Your task to perform on an android device: Empty the shopping cart on walmart.com. Add "rayovac triple a" to the cart on walmart.com, then select checkout. Image 0: 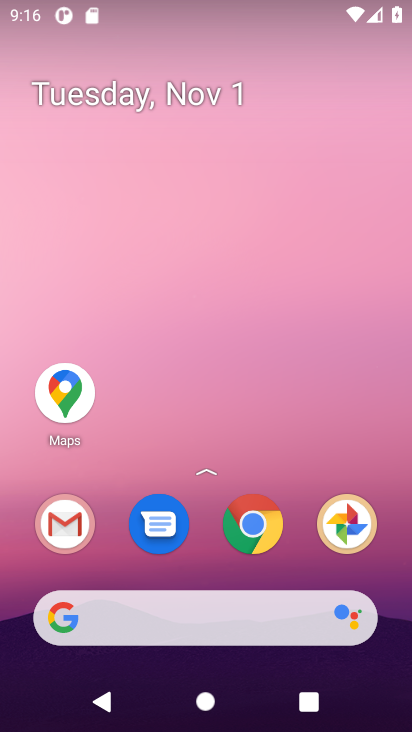
Step 0: press home button
Your task to perform on an android device: Empty the shopping cart on walmart.com. Add "rayovac triple a" to the cart on walmart.com, then select checkout. Image 1: 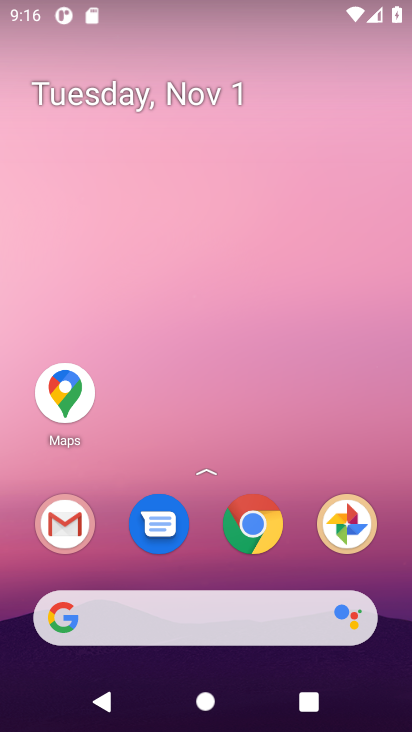
Step 1: click (92, 612)
Your task to perform on an android device: Empty the shopping cart on walmart.com. Add "rayovac triple a" to the cart on walmart.com, then select checkout. Image 2: 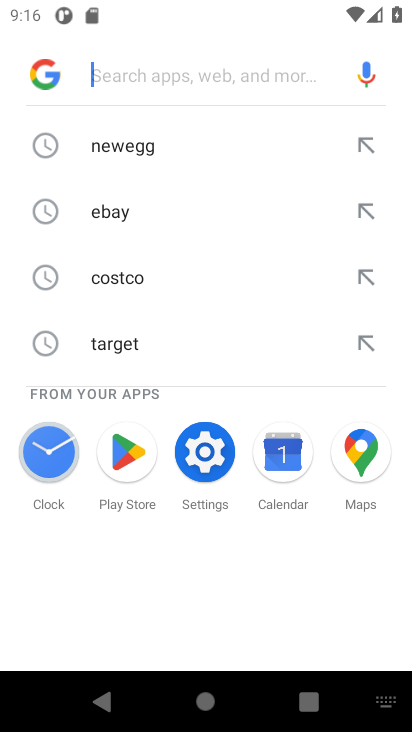
Step 2: type "walmart.com"
Your task to perform on an android device: Empty the shopping cart on walmart.com. Add "rayovac triple a" to the cart on walmart.com, then select checkout. Image 3: 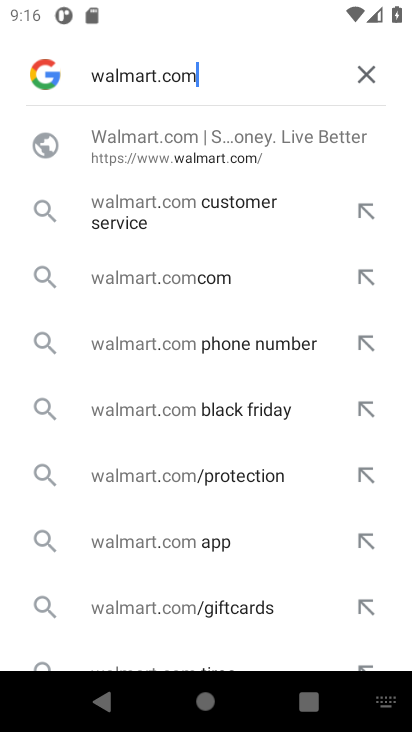
Step 3: press enter
Your task to perform on an android device: Empty the shopping cart on walmart.com. Add "rayovac triple a" to the cart on walmart.com, then select checkout. Image 4: 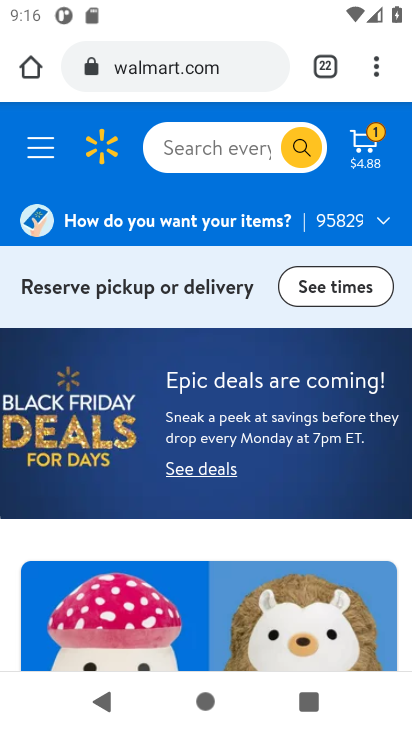
Step 4: click (368, 138)
Your task to perform on an android device: Empty the shopping cart on walmart.com. Add "rayovac triple a" to the cart on walmart.com, then select checkout. Image 5: 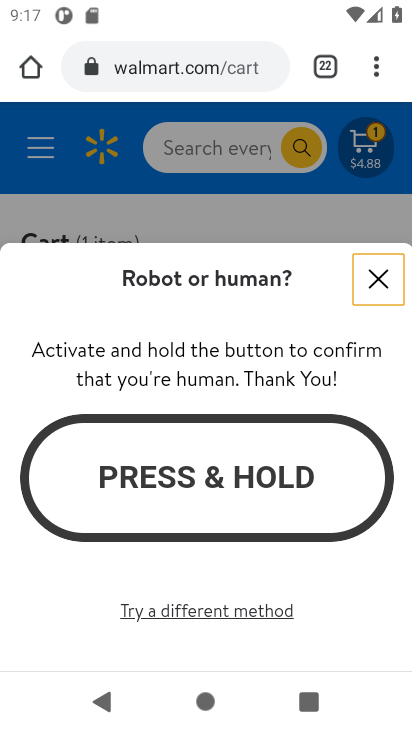
Step 5: click (172, 481)
Your task to perform on an android device: Empty the shopping cart on walmart.com. Add "rayovac triple a" to the cart on walmart.com, then select checkout. Image 6: 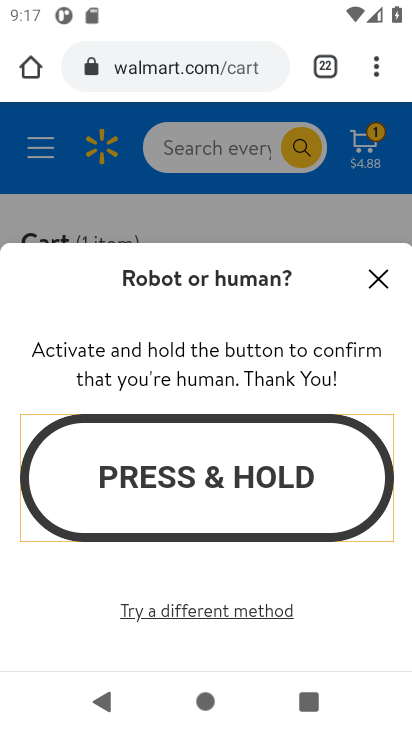
Step 6: click (170, 474)
Your task to perform on an android device: Empty the shopping cart on walmart.com. Add "rayovac triple a" to the cart on walmart.com, then select checkout. Image 7: 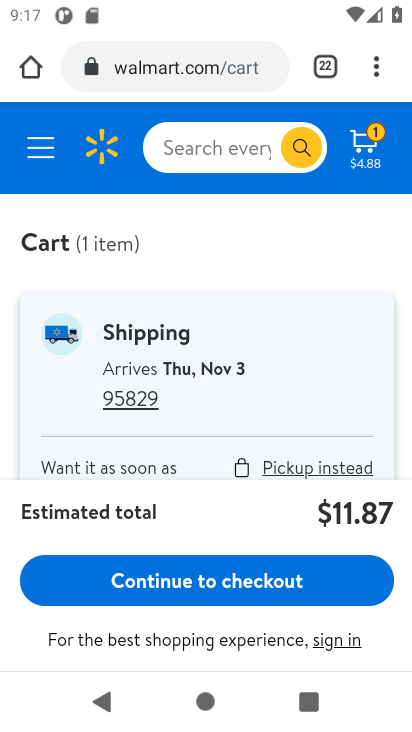
Step 7: drag from (212, 418) to (235, 234)
Your task to perform on an android device: Empty the shopping cart on walmart.com. Add "rayovac triple a" to the cart on walmart.com, then select checkout. Image 8: 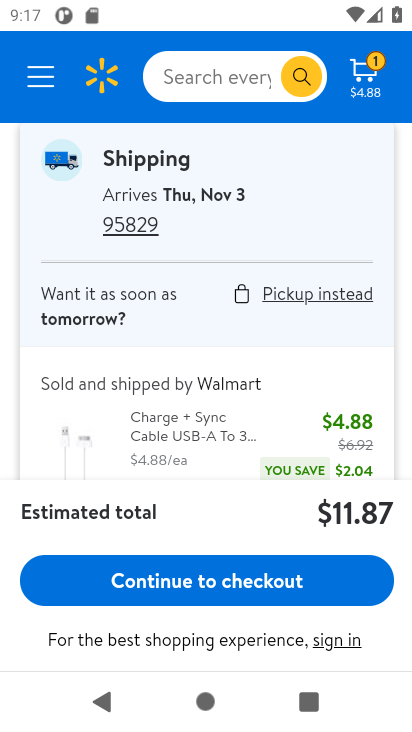
Step 8: drag from (183, 430) to (208, 184)
Your task to perform on an android device: Empty the shopping cart on walmart.com. Add "rayovac triple a" to the cart on walmart.com, then select checkout. Image 9: 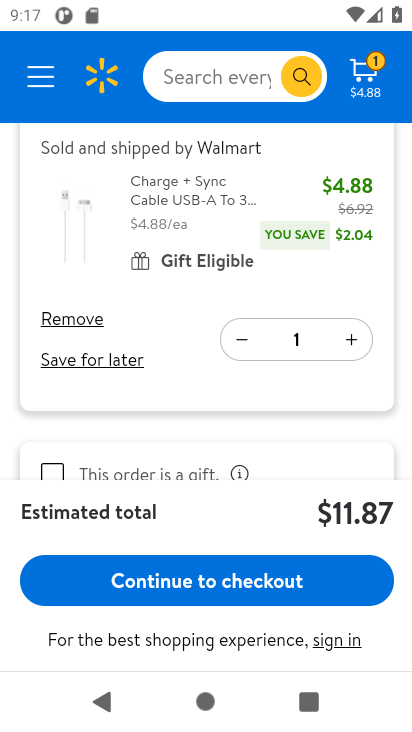
Step 9: click (48, 313)
Your task to perform on an android device: Empty the shopping cart on walmart.com. Add "rayovac triple a" to the cart on walmart.com, then select checkout. Image 10: 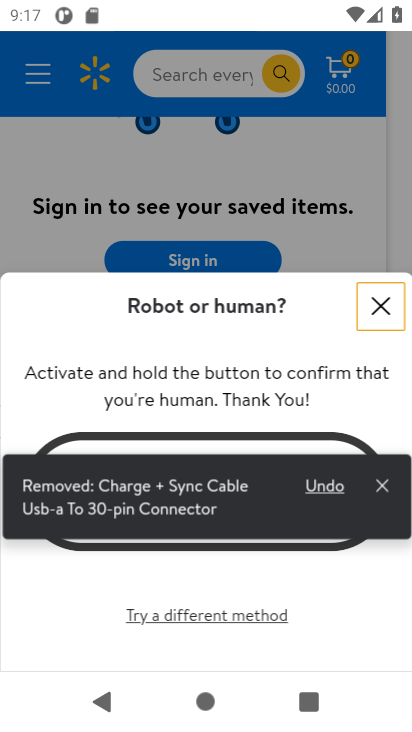
Step 10: click (186, 77)
Your task to perform on an android device: Empty the shopping cart on walmart.com. Add "rayovac triple a" to the cart on walmart.com, then select checkout. Image 11: 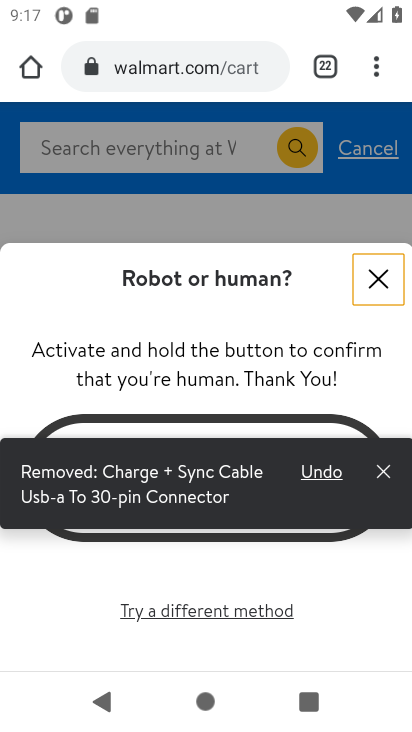
Step 11: click (379, 467)
Your task to perform on an android device: Empty the shopping cart on walmart.com. Add "rayovac triple a" to the cart on walmart.com, then select checkout. Image 12: 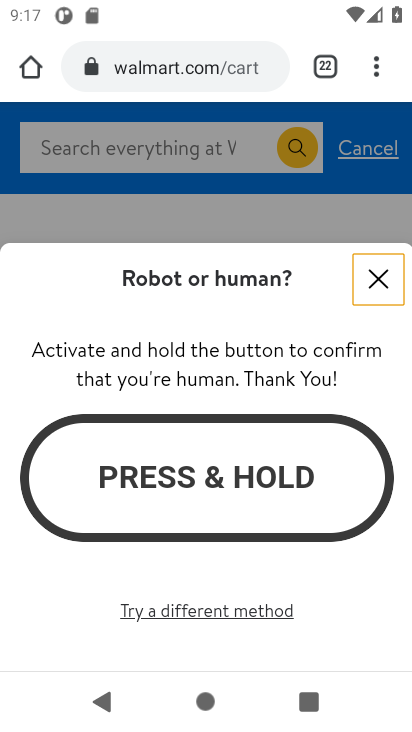
Step 12: click (198, 469)
Your task to perform on an android device: Empty the shopping cart on walmart.com. Add "rayovac triple a" to the cart on walmart.com, then select checkout. Image 13: 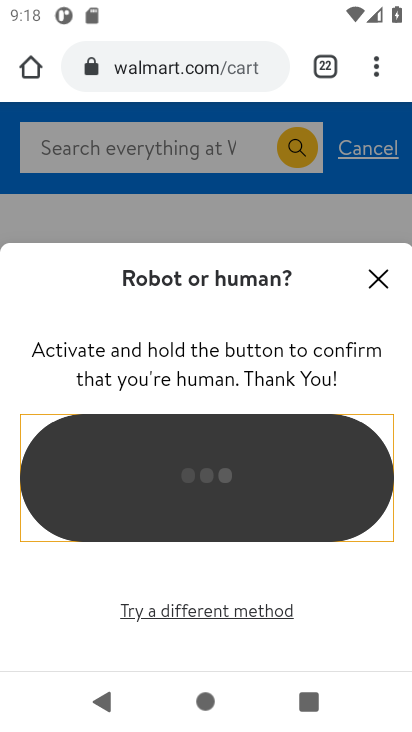
Step 13: task complete